Your task to perform on an android device: toggle notifications settings in the gmail app Image 0: 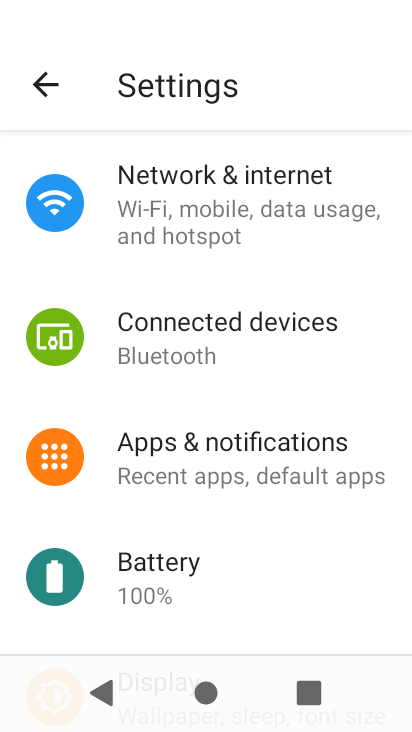
Step 0: press home button
Your task to perform on an android device: toggle notifications settings in the gmail app Image 1: 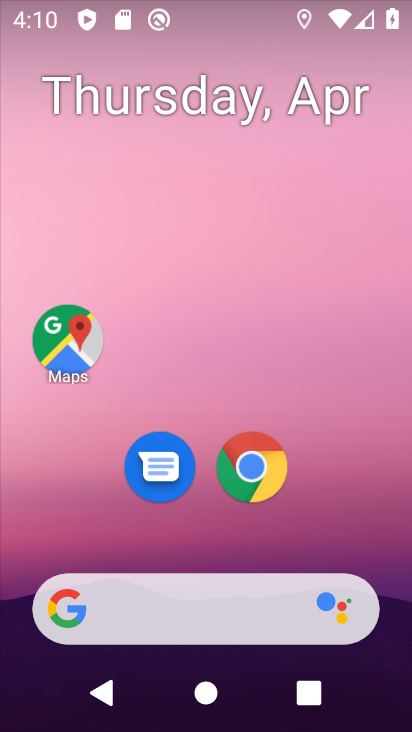
Step 1: drag from (289, 481) to (362, 42)
Your task to perform on an android device: toggle notifications settings in the gmail app Image 2: 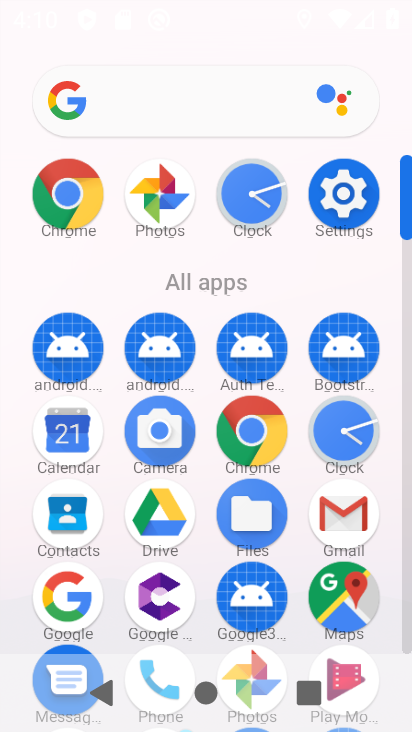
Step 2: click (339, 523)
Your task to perform on an android device: toggle notifications settings in the gmail app Image 3: 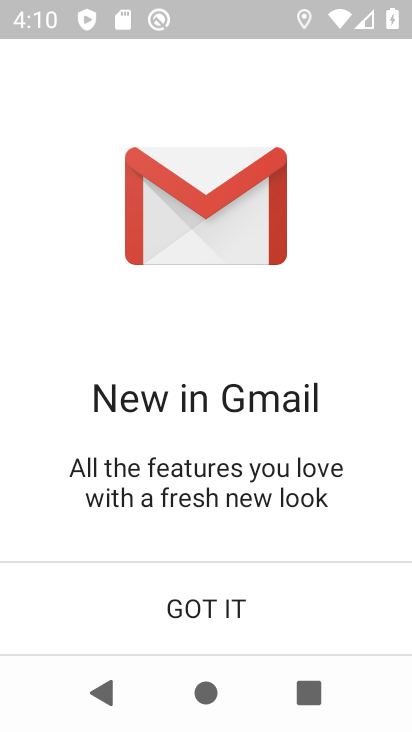
Step 3: click (209, 608)
Your task to perform on an android device: toggle notifications settings in the gmail app Image 4: 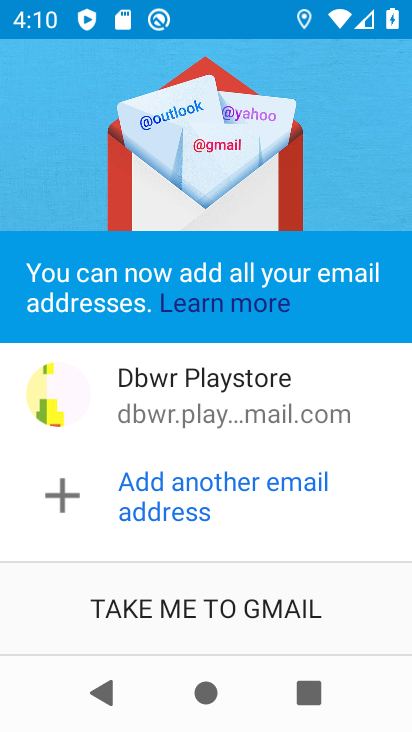
Step 4: click (183, 600)
Your task to perform on an android device: toggle notifications settings in the gmail app Image 5: 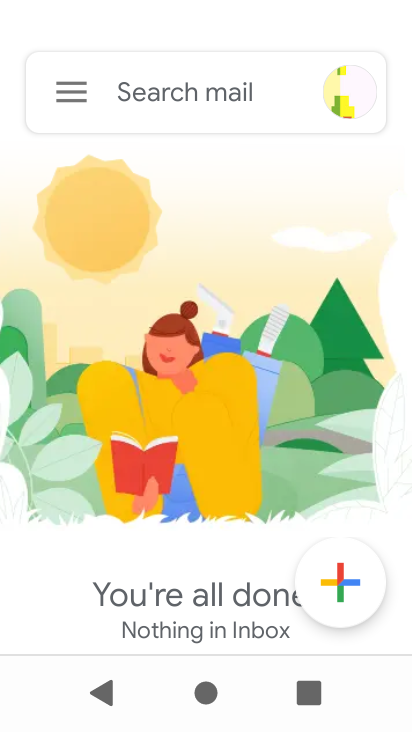
Step 5: click (51, 74)
Your task to perform on an android device: toggle notifications settings in the gmail app Image 6: 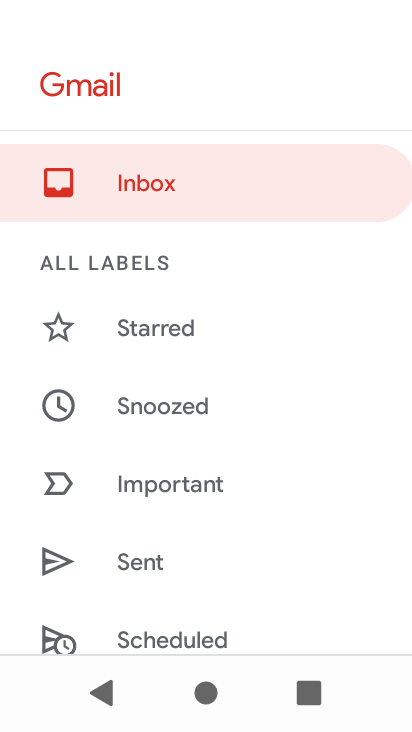
Step 6: drag from (140, 600) to (251, 235)
Your task to perform on an android device: toggle notifications settings in the gmail app Image 7: 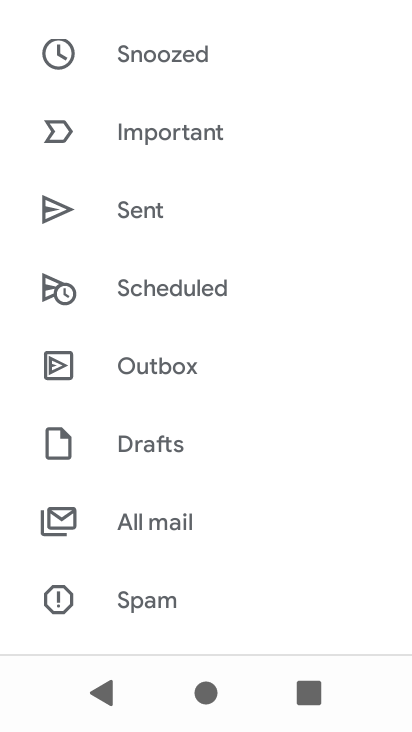
Step 7: drag from (137, 521) to (238, 102)
Your task to perform on an android device: toggle notifications settings in the gmail app Image 8: 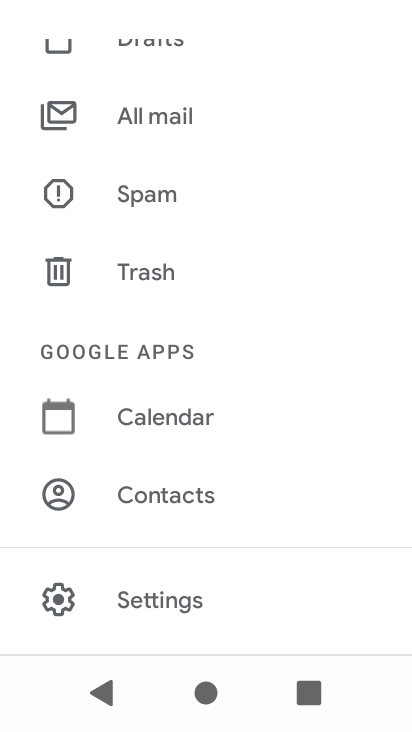
Step 8: drag from (198, 356) to (222, 265)
Your task to perform on an android device: toggle notifications settings in the gmail app Image 9: 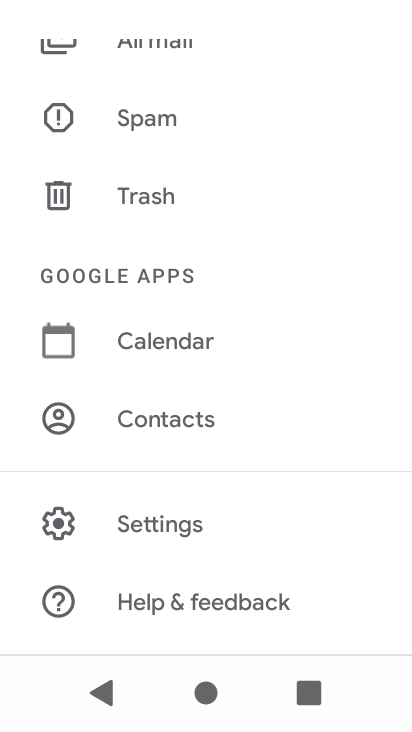
Step 9: click (141, 508)
Your task to perform on an android device: toggle notifications settings in the gmail app Image 10: 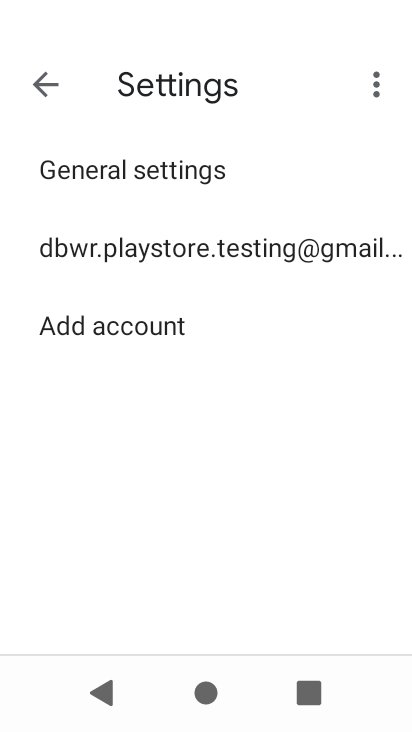
Step 10: click (168, 175)
Your task to perform on an android device: toggle notifications settings in the gmail app Image 11: 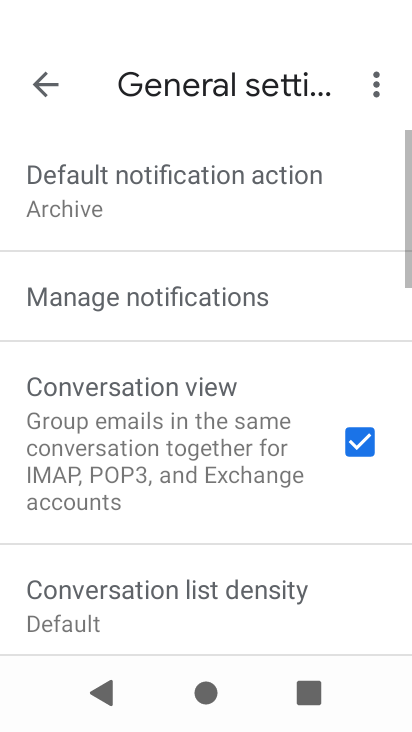
Step 11: click (147, 317)
Your task to perform on an android device: toggle notifications settings in the gmail app Image 12: 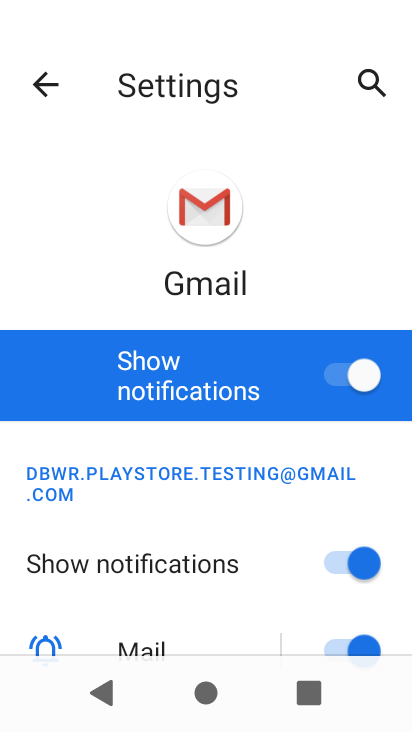
Step 12: click (325, 375)
Your task to perform on an android device: toggle notifications settings in the gmail app Image 13: 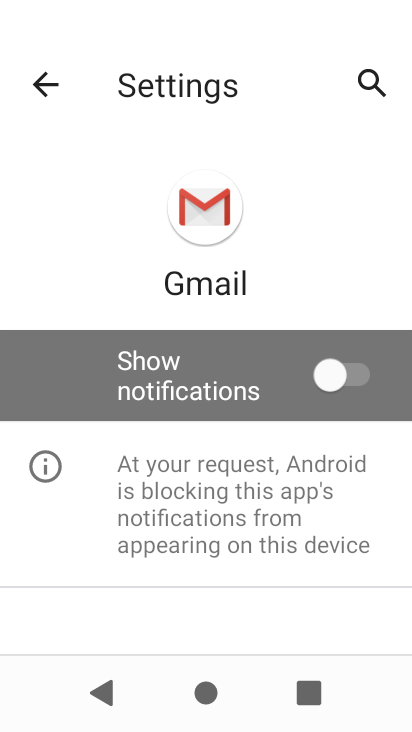
Step 13: task complete